Your task to perform on an android device: Open ESPN.com Image 0: 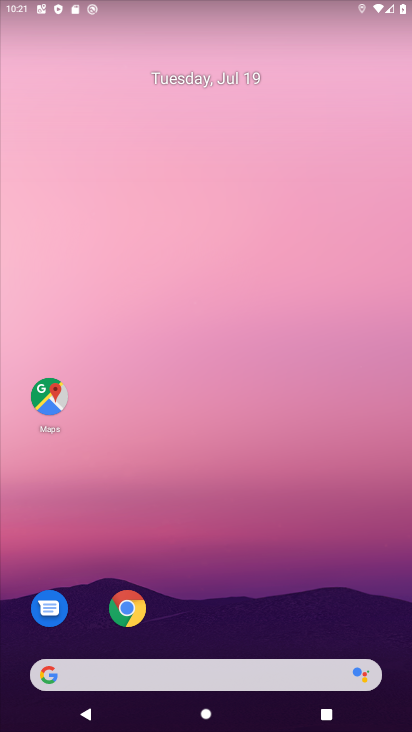
Step 0: click (141, 607)
Your task to perform on an android device: Open ESPN.com Image 1: 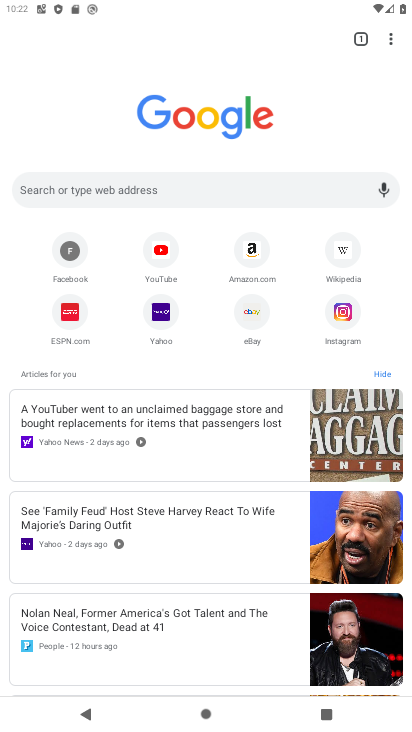
Step 1: click (81, 328)
Your task to perform on an android device: Open ESPN.com Image 2: 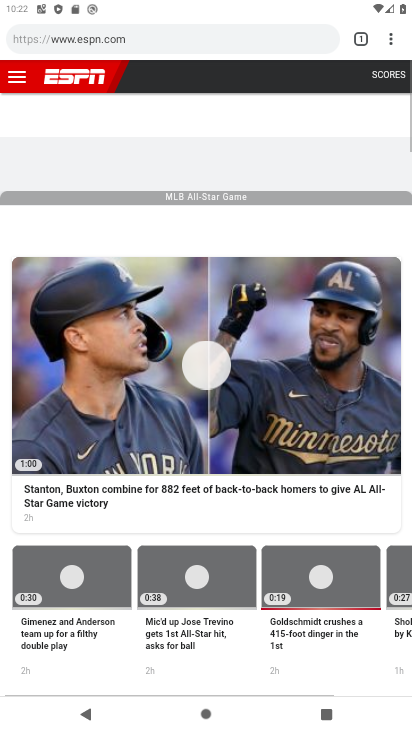
Step 2: task complete